Your task to perform on an android device: Open the map Image 0: 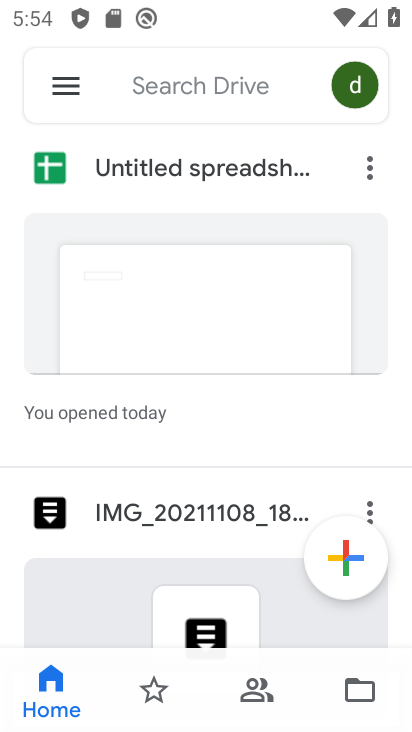
Step 0: press home button
Your task to perform on an android device: Open the map Image 1: 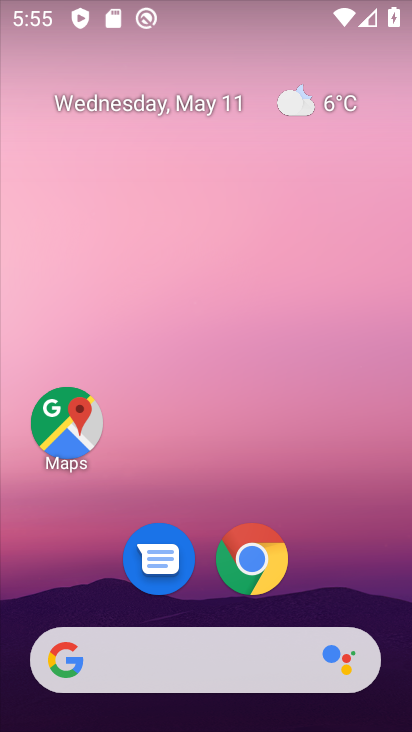
Step 1: click (67, 434)
Your task to perform on an android device: Open the map Image 2: 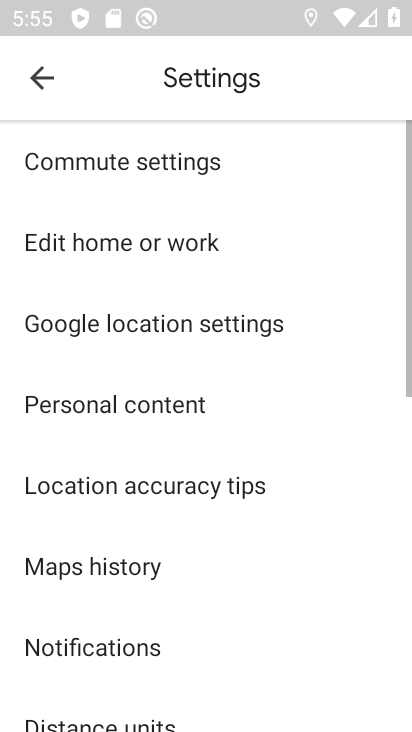
Step 2: task complete